Your task to perform on an android device: Go to Reddit.com Image 0: 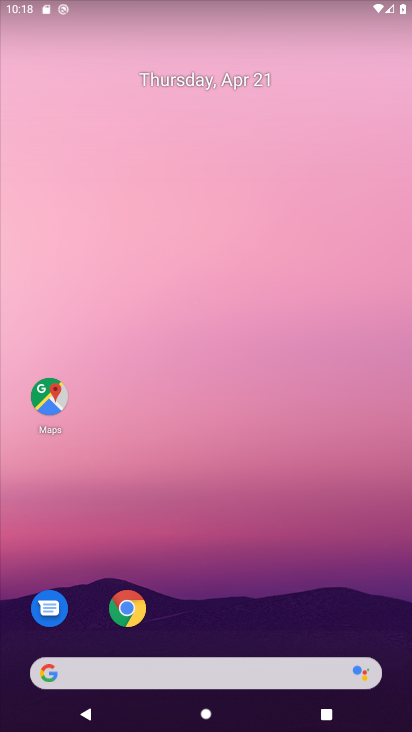
Step 0: click (125, 603)
Your task to perform on an android device: Go to Reddit.com Image 1: 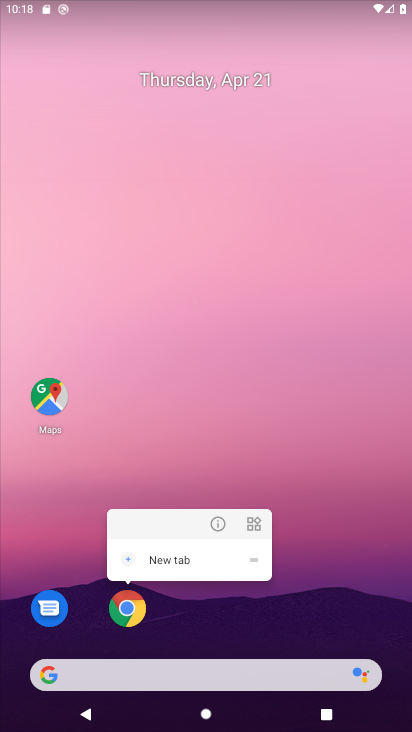
Step 1: click (125, 613)
Your task to perform on an android device: Go to Reddit.com Image 2: 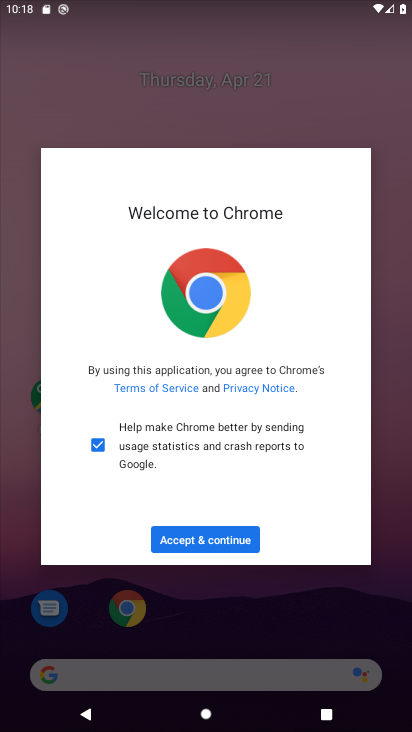
Step 2: click (239, 537)
Your task to perform on an android device: Go to Reddit.com Image 3: 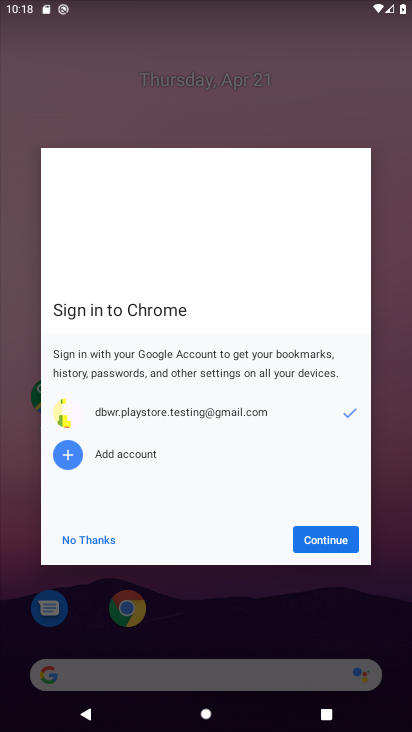
Step 3: click (325, 539)
Your task to perform on an android device: Go to Reddit.com Image 4: 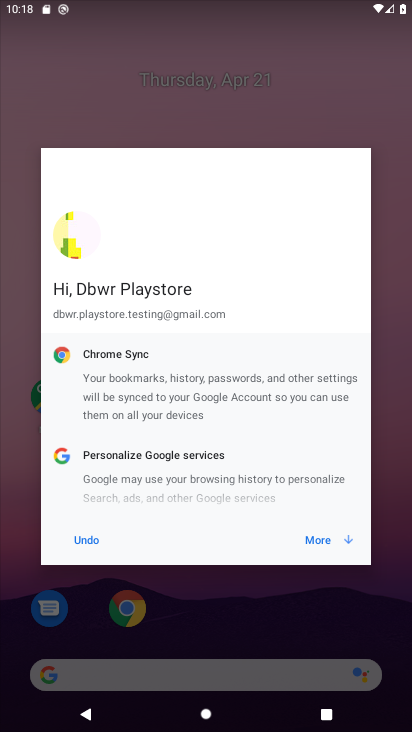
Step 4: click (325, 539)
Your task to perform on an android device: Go to Reddit.com Image 5: 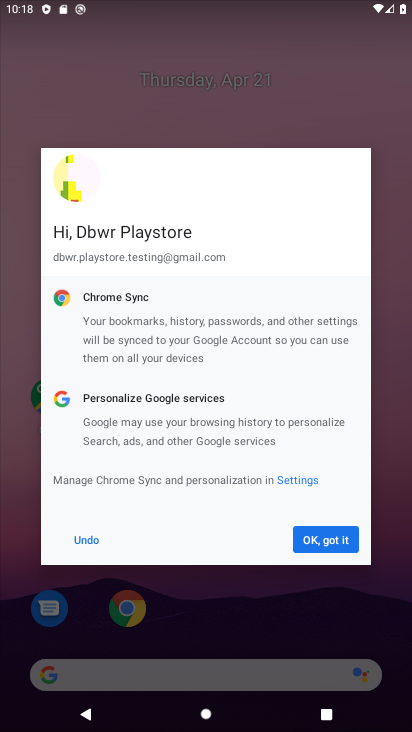
Step 5: click (325, 539)
Your task to perform on an android device: Go to Reddit.com Image 6: 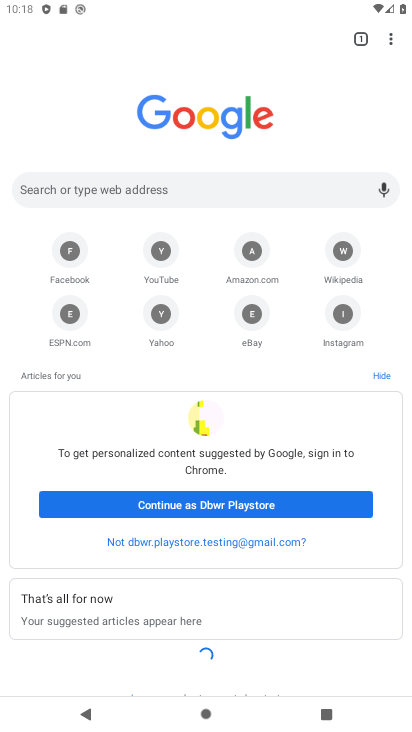
Step 6: click (145, 38)
Your task to perform on an android device: Go to Reddit.com Image 7: 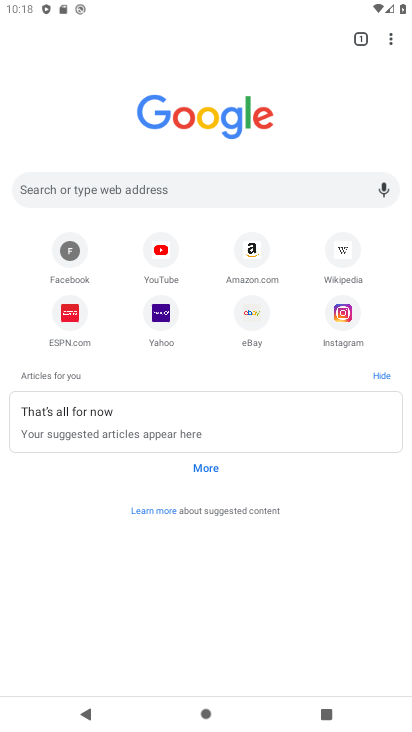
Step 7: click (97, 186)
Your task to perform on an android device: Go to Reddit.com Image 8: 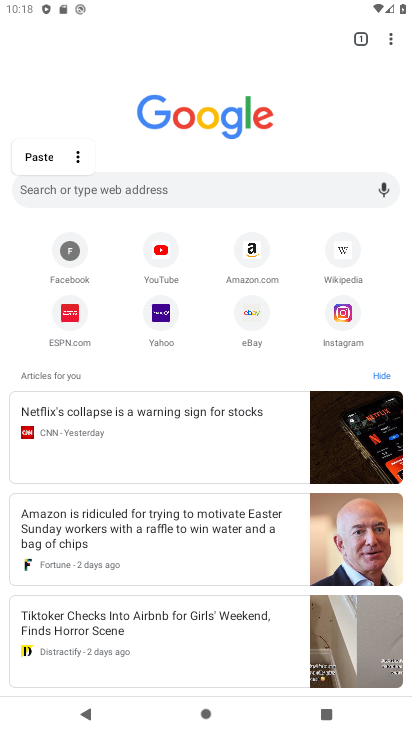
Step 8: click (185, 181)
Your task to perform on an android device: Go to Reddit.com Image 9: 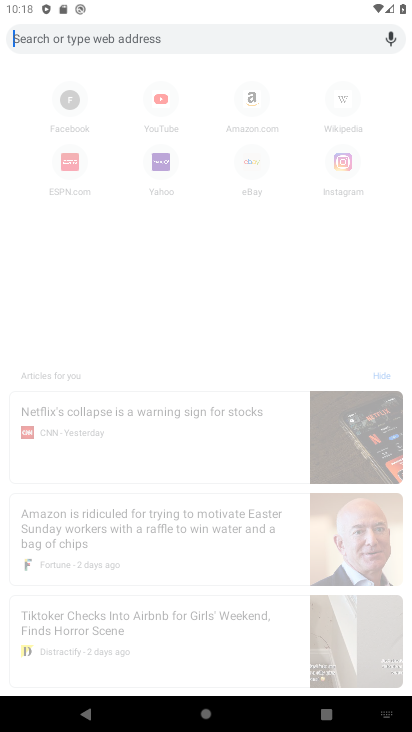
Step 9: type "reddit.com"
Your task to perform on an android device: Go to Reddit.com Image 10: 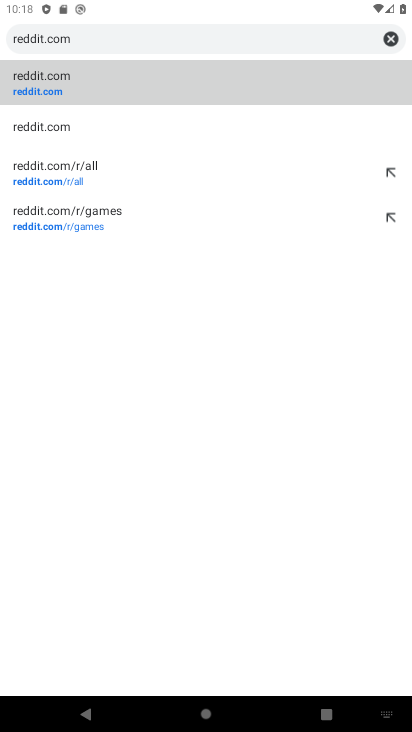
Step 10: click (41, 85)
Your task to perform on an android device: Go to Reddit.com Image 11: 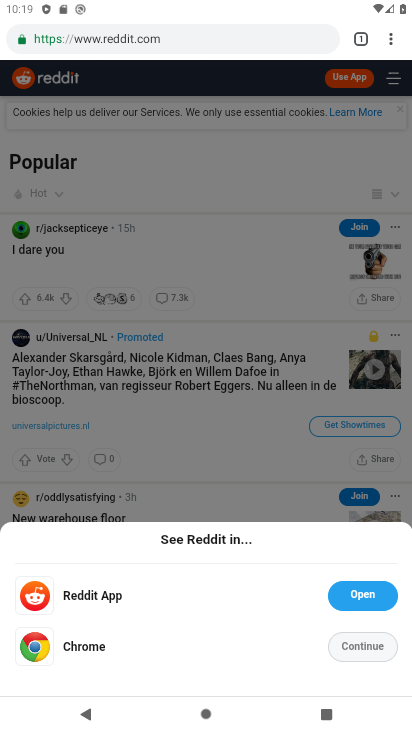
Step 11: task complete